Your task to perform on an android device: Go to display settings Image 0: 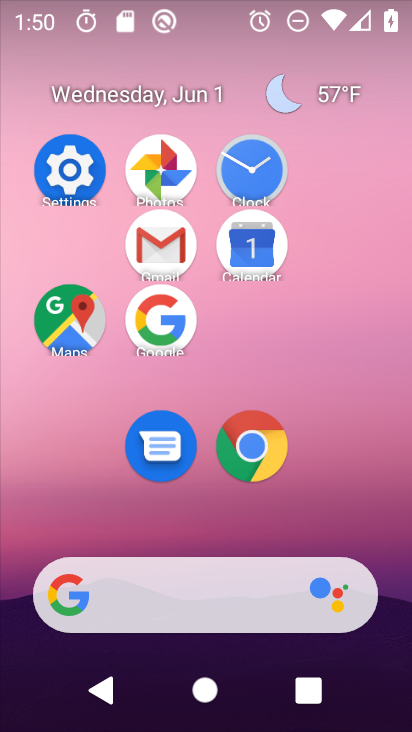
Step 0: click (81, 193)
Your task to perform on an android device: Go to display settings Image 1: 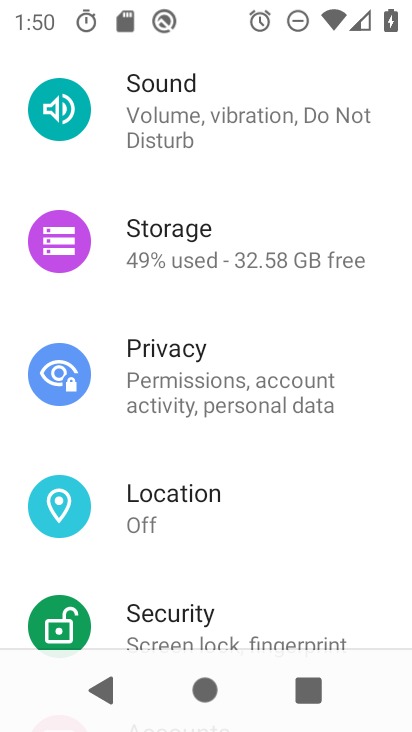
Step 1: drag from (289, 512) to (331, 156)
Your task to perform on an android device: Go to display settings Image 2: 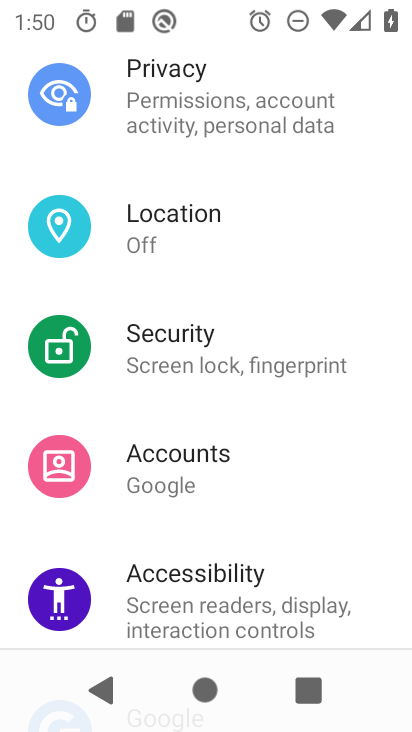
Step 2: drag from (264, 168) to (329, 639)
Your task to perform on an android device: Go to display settings Image 3: 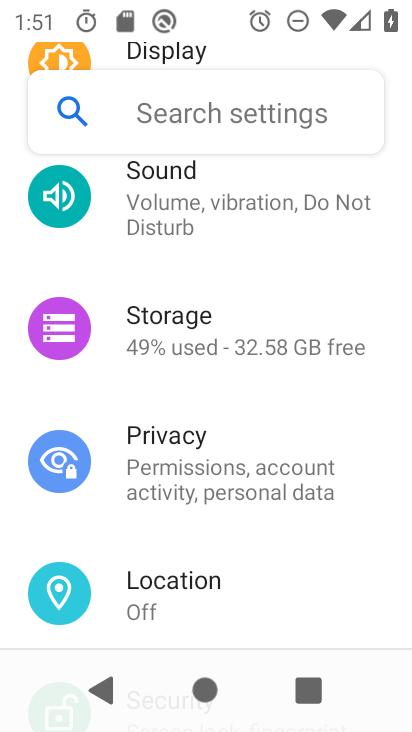
Step 3: drag from (332, 125) to (348, 621)
Your task to perform on an android device: Go to display settings Image 4: 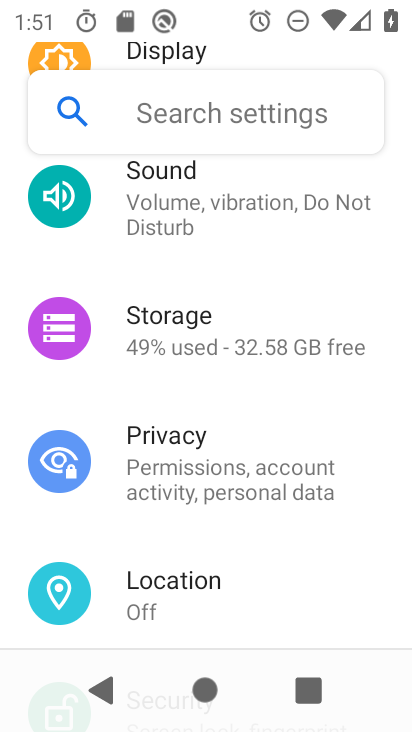
Step 4: drag from (284, 164) to (319, 588)
Your task to perform on an android device: Go to display settings Image 5: 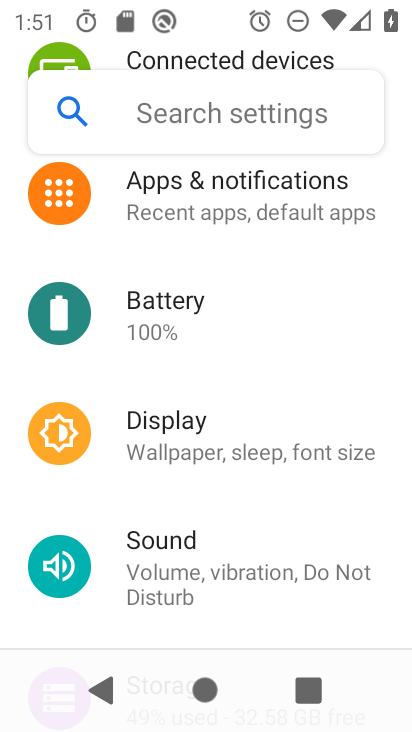
Step 5: click (229, 456)
Your task to perform on an android device: Go to display settings Image 6: 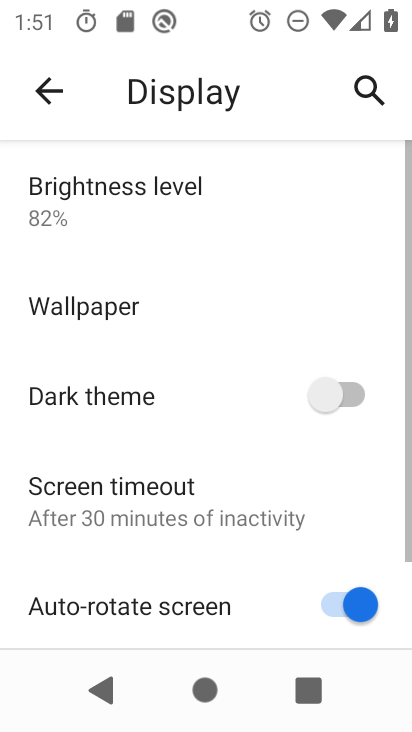
Step 6: task complete